Your task to perform on an android device: What's the weather? Image 0: 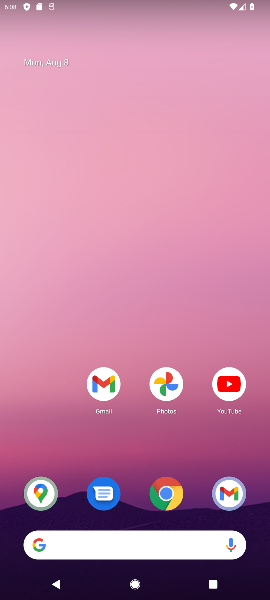
Step 0: drag from (113, 305) to (141, 125)
Your task to perform on an android device: What's the weather? Image 1: 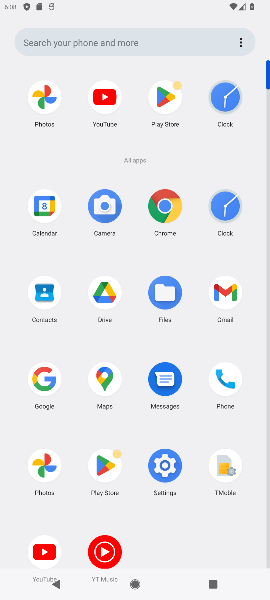
Step 1: click (40, 382)
Your task to perform on an android device: What's the weather? Image 2: 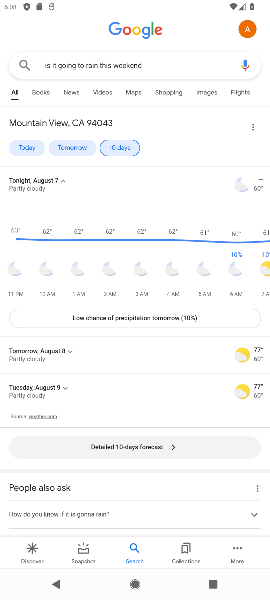
Step 2: click (160, 66)
Your task to perform on an android device: What's the weather? Image 3: 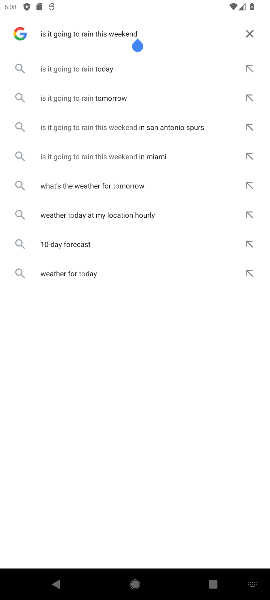
Step 3: click (252, 38)
Your task to perform on an android device: What's the weather? Image 4: 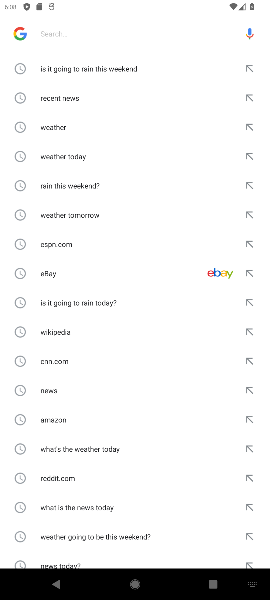
Step 4: click (62, 122)
Your task to perform on an android device: What's the weather? Image 5: 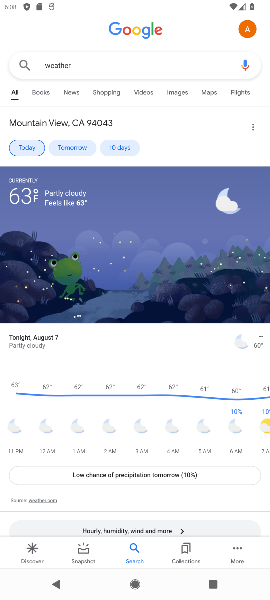
Step 5: task complete